Your task to perform on an android device: Open Reddit.com Image 0: 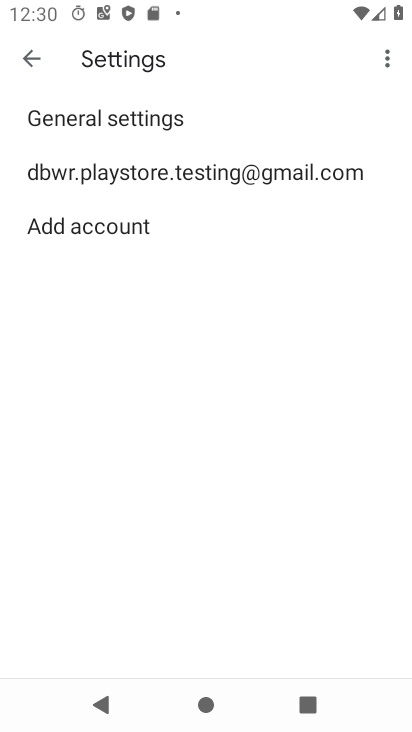
Step 0: press home button
Your task to perform on an android device: Open Reddit.com Image 1: 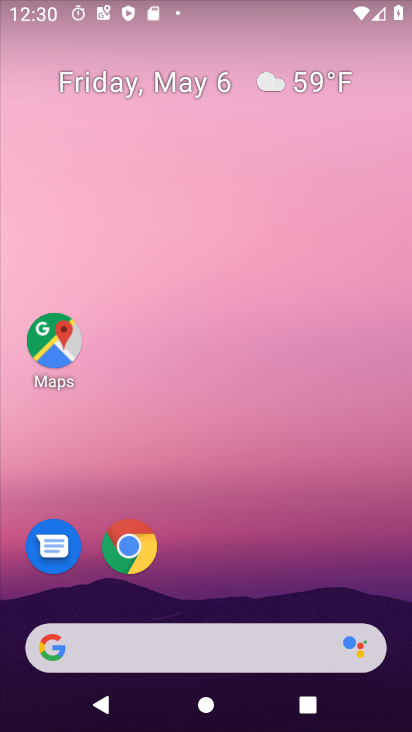
Step 1: click (131, 545)
Your task to perform on an android device: Open Reddit.com Image 2: 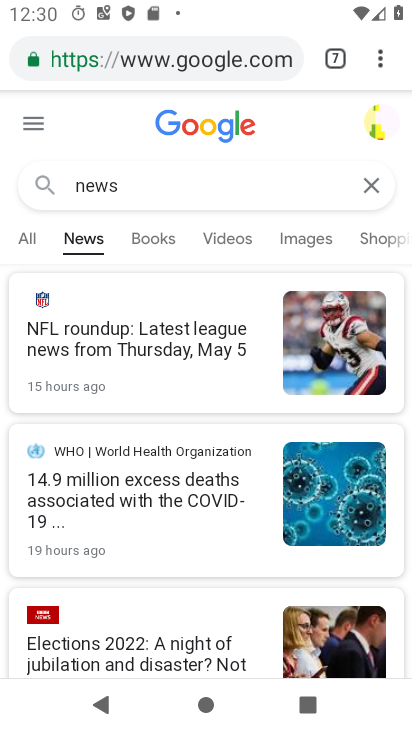
Step 2: click (338, 55)
Your task to perform on an android device: Open Reddit.com Image 3: 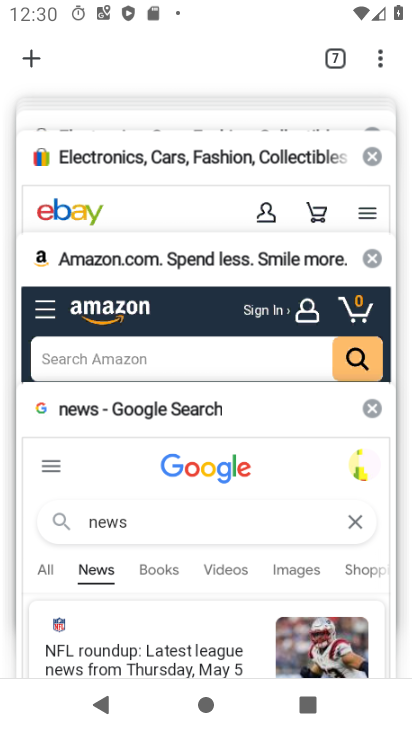
Step 3: click (33, 54)
Your task to perform on an android device: Open Reddit.com Image 4: 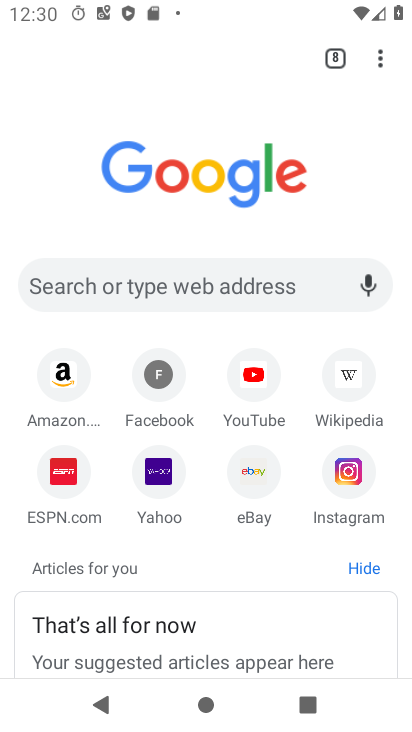
Step 4: click (334, 58)
Your task to perform on an android device: Open Reddit.com Image 5: 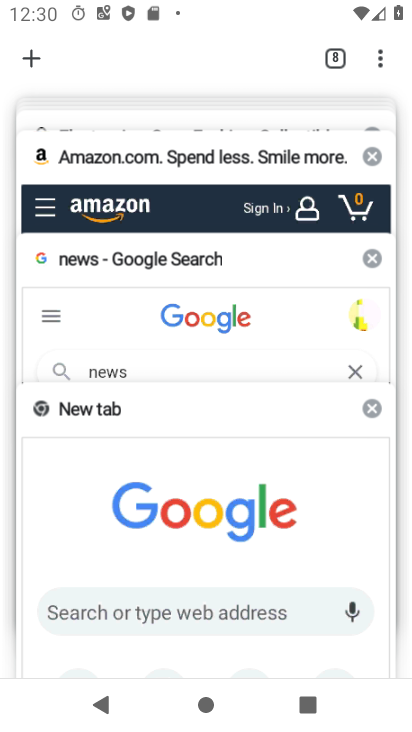
Step 5: drag from (224, 168) to (191, 489)
Your task to perform on an android device: Open Reddit.com Image 6: 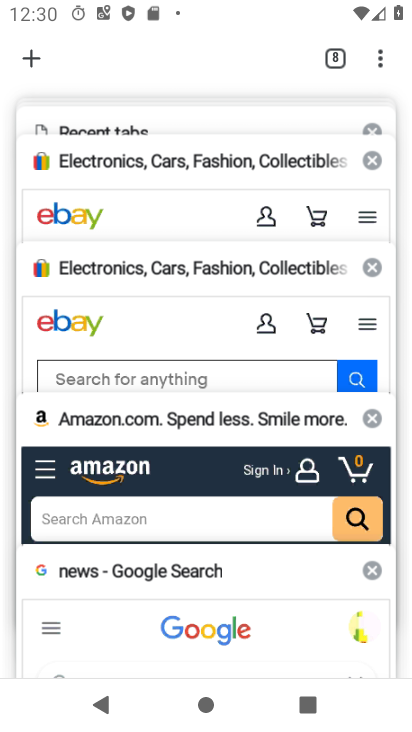
Step 6: drag from (190, 173) to (157, 494)
Your task to perform on an android device: Open Reddit.com Image 7: 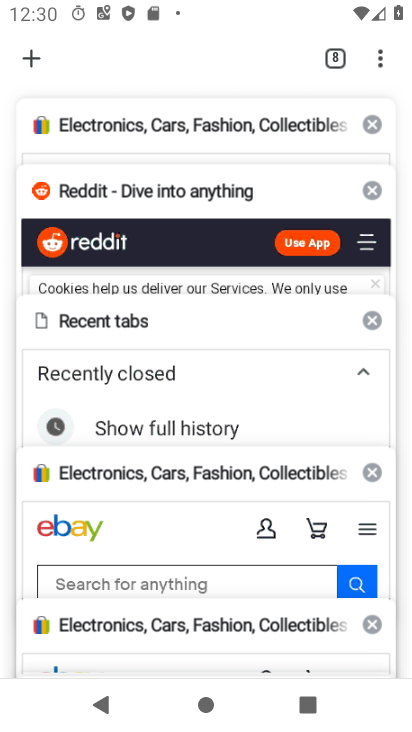
Step 7: click (146, 271)
Your task to perform on an android device: Open Reddit.com Image 8: 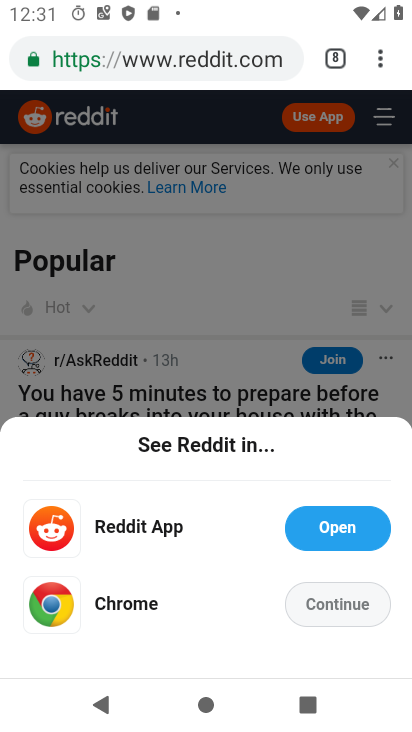
Step 8: click (327, 602)
Your task to perform on an android device: Open Reddit.com Image 9: 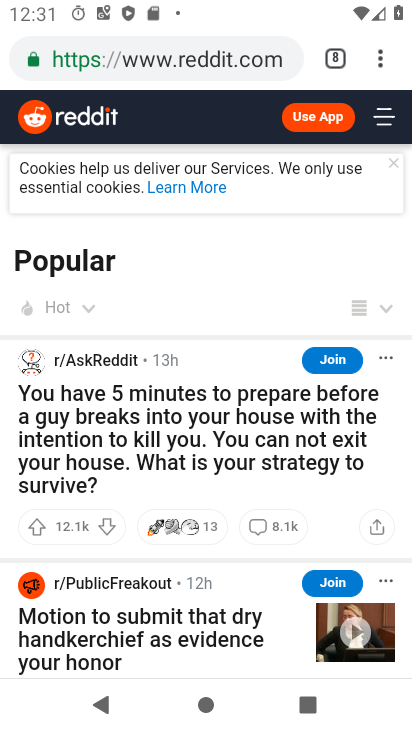
Step 9: task complete